Your task to perform on an android device: Go to wifi settings Image 0: 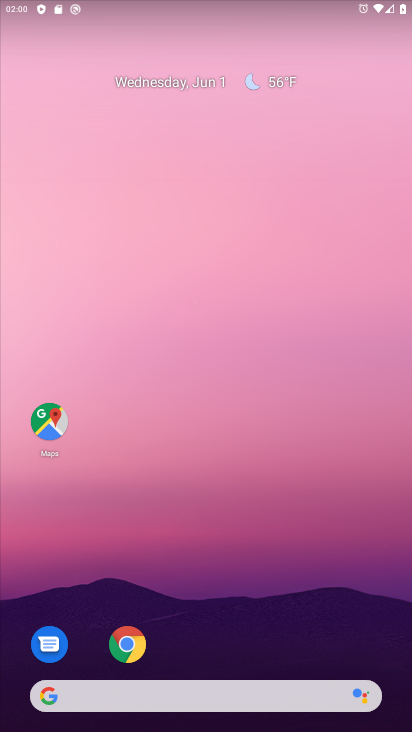
Step 0: drag from (203, 668) to (256, 321)
Your task to perform on an android device: Go to wifi settings Image 1: 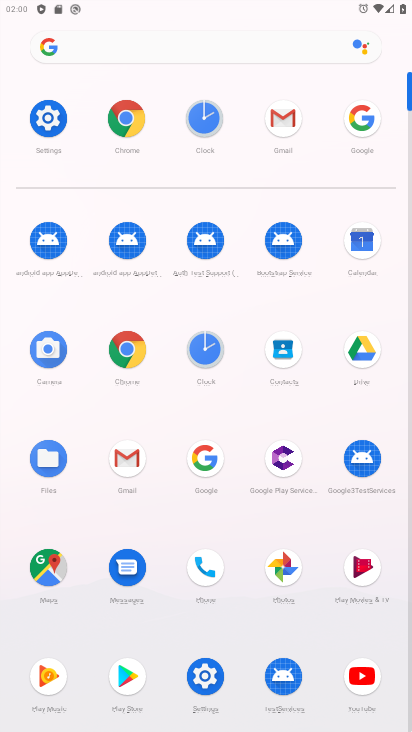
Step 1: click (35, 125)
Your task to perform on an android device: Go to wifi settings Image 2: 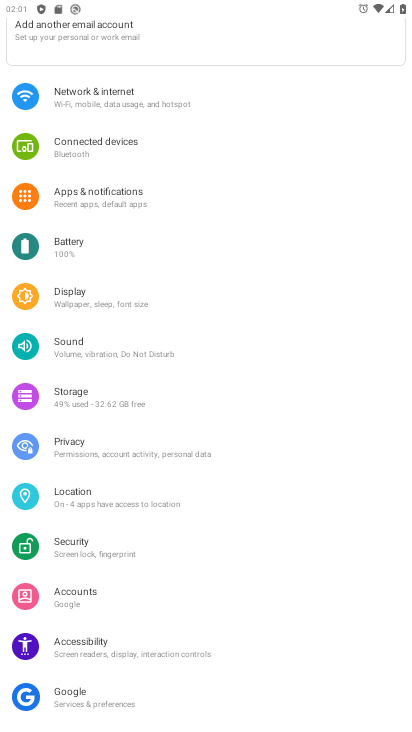
Step 2: click (62, 94)
Your task to perform on an android device: Go to wifi settings Image 3: 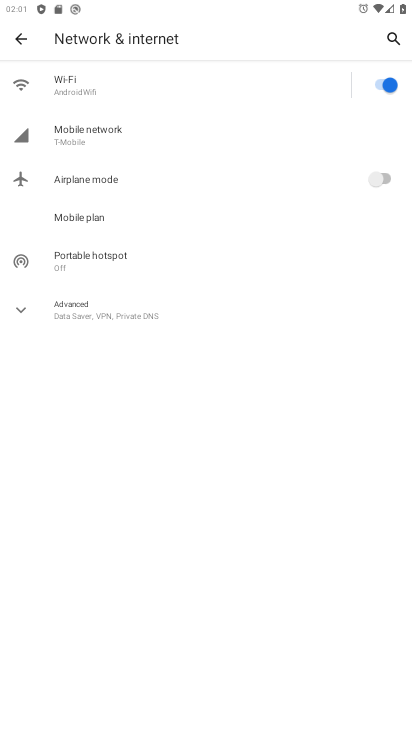
Step 3: click (91, 82)
Your task to perform on an android device: Go to wifi settings Image 4: 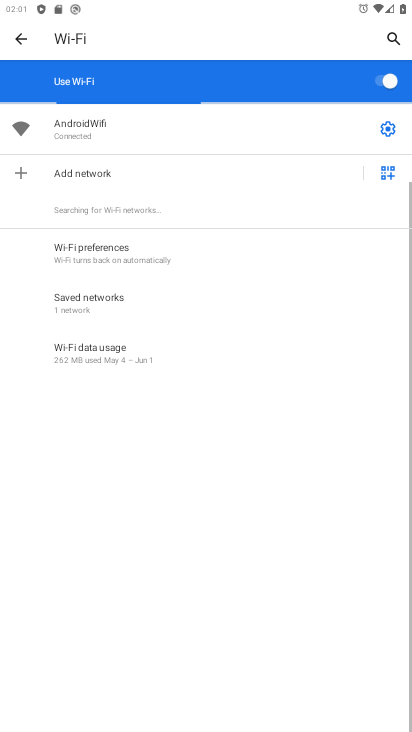
Step 4: click (391, 126)
Your task to perform on an android device: Go to wifi settings Image 5: 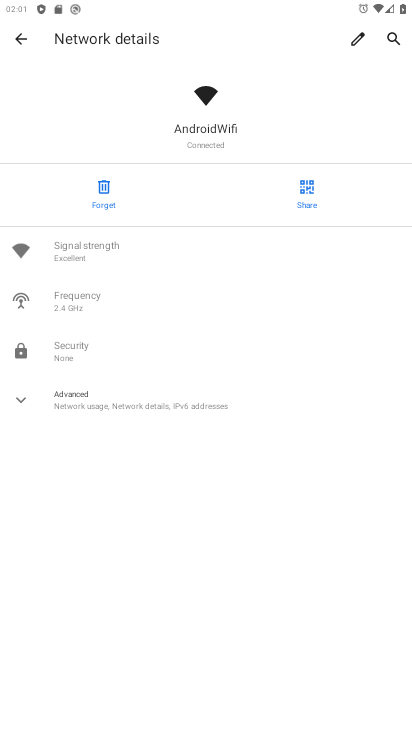
Step 5: task complete